Your task to perform on an android device: Open wifi settings Image 0: 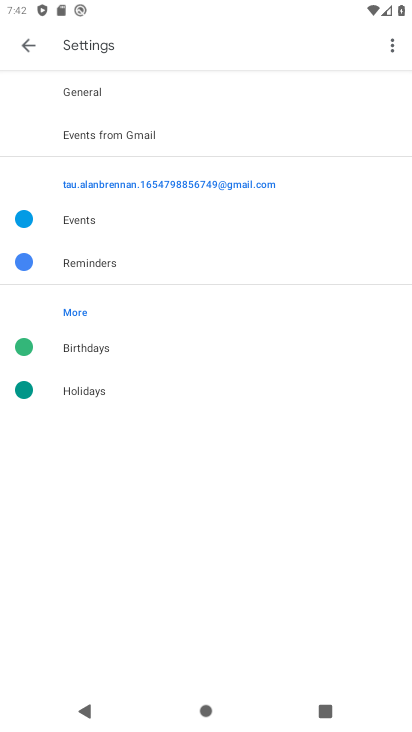
Step 0: press home button
Your task to perform on an android device: Open wifi settings Image 1: 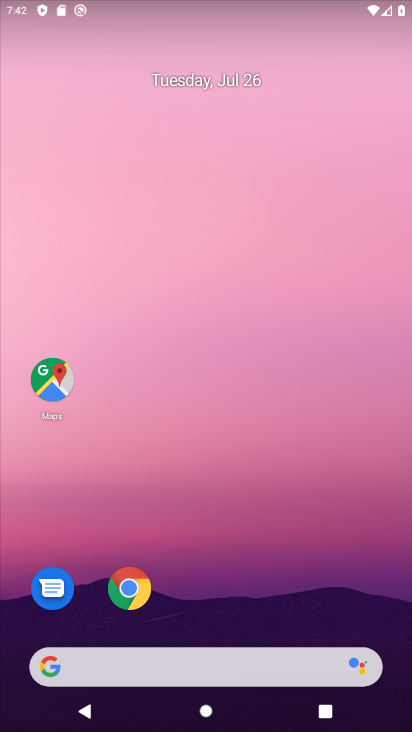
Step 1: drag from (234, 623) to (240, 289)
Your task to perform on an android device: Open wifi settings Image 2: 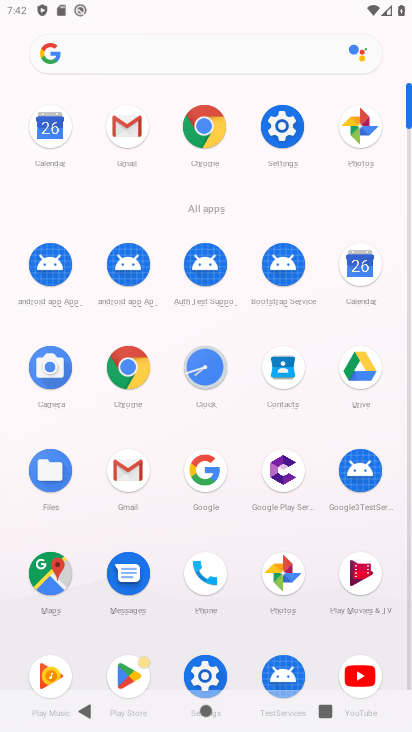
Step 2: click (278, 124)
Your task to perform on an android device: Open wifi settings Image 3: 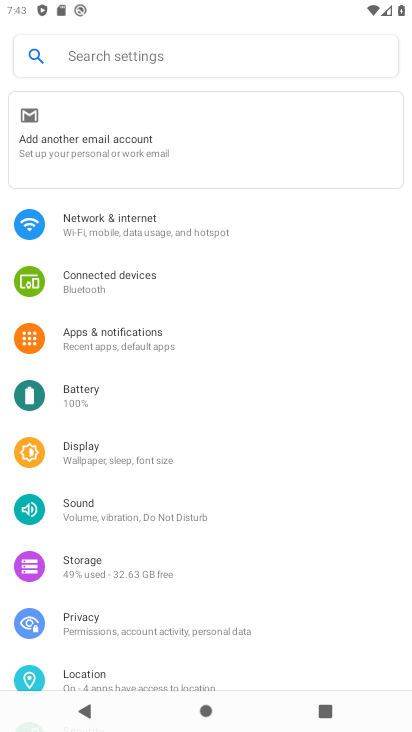
Step 3: click (121, 229)
Your task to perform on an android device: Open wifi settings Image 4: 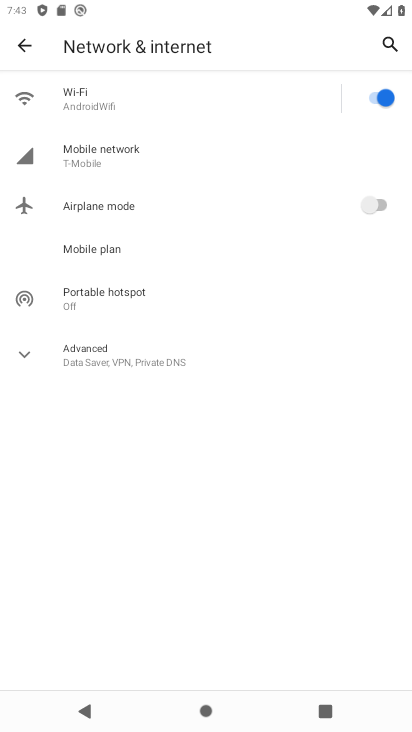
Step 4: click (127, 111)
Your task to perform on an android device: Open wifi settings Image 5: 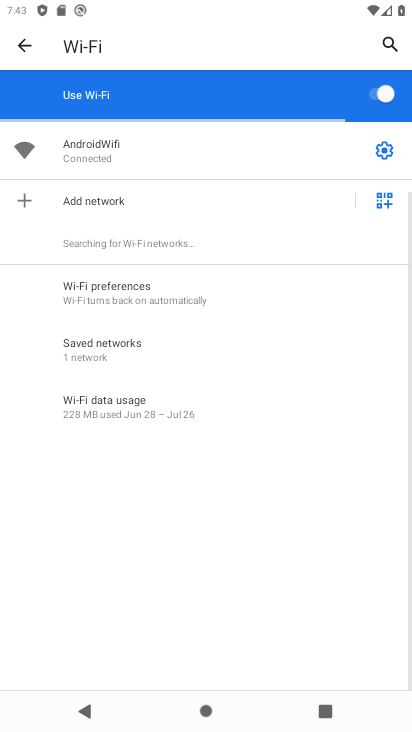
Step 5: click (384, 146)
Your task to perform on an android device: Open wifi settings Image 6: 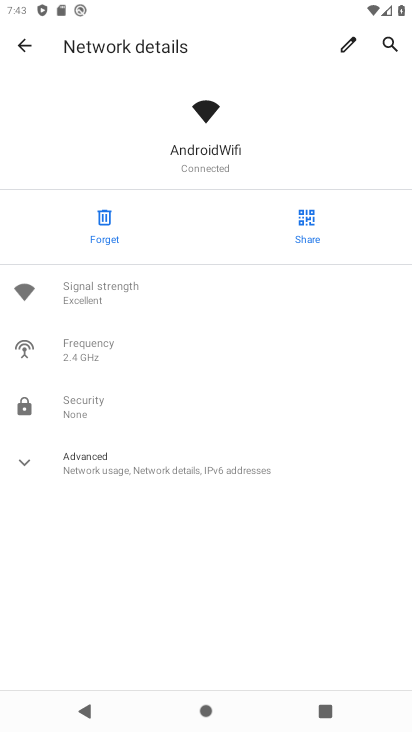
Step 6: click (113, 461)
Your task to perform on an android device: Open wifi settings Image 7: 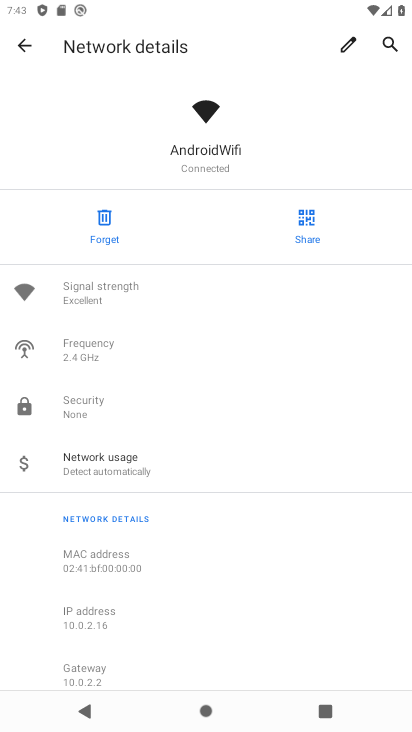
Step 7: task complete